Your task to perform on an android device: Open maps Image 0: 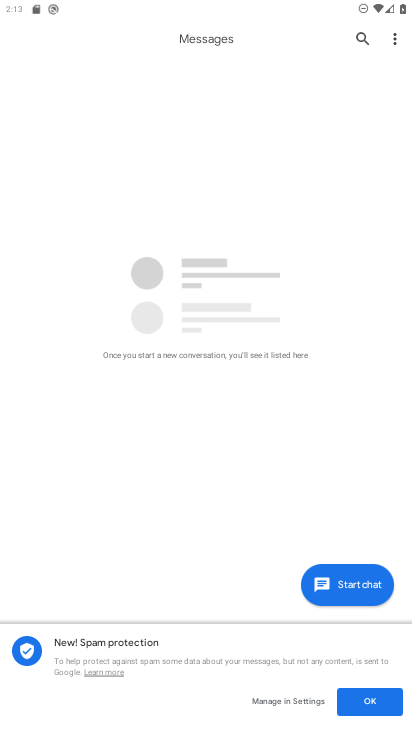
Step 0: press home button
Your task to perform on an android device: Open maps Image 1: 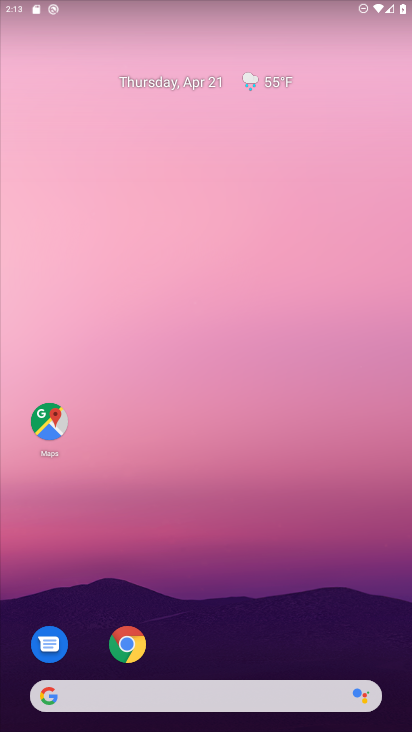
Step 1: click (50, 418)
Your task to perform on an android device: Open maps Image 2: 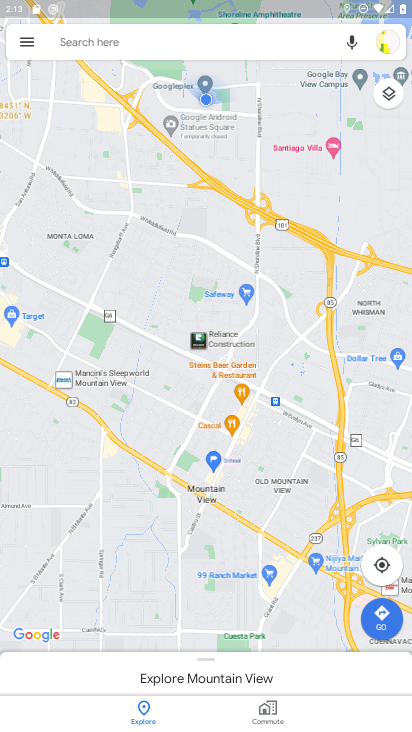
Step 2: task complete